Your task to perform on an android device: Open battery settings Image 0: 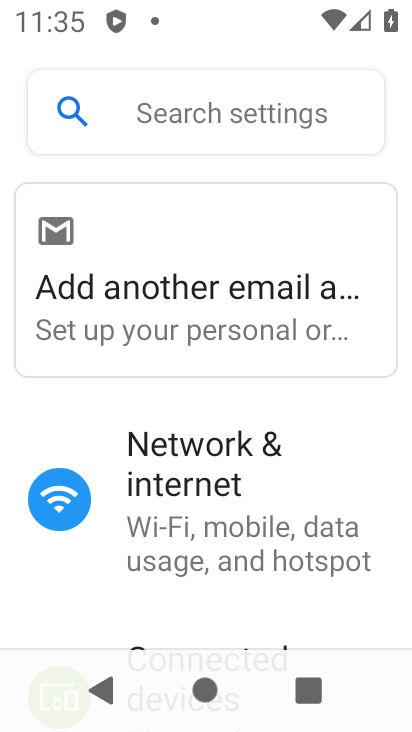
Step 0: press home button
Your task to perform on an android device: Open battery settings Image 1: 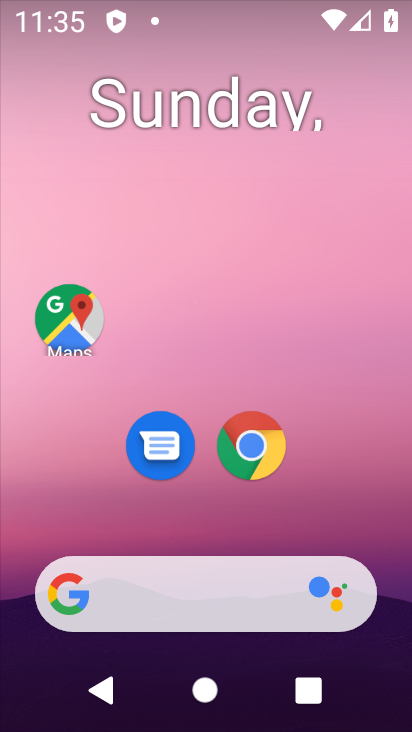
Step 1: drag from (377, 526) to (348, 159)
Your task to perform on an android device: Open battery settings Image 2: 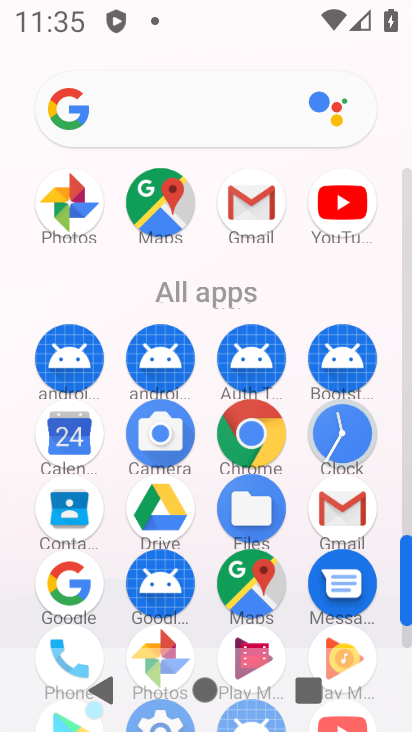
Step 2: drag from (206, 535) to (210, 250)
Your task to perform on an android device: Open battery settings Image 3: 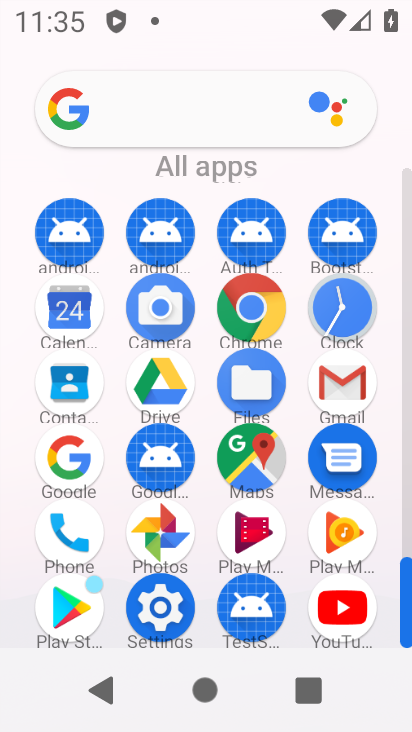
Step 3: click (158, 599)
Your task to perform on an android device: Open battery settings Image 4: 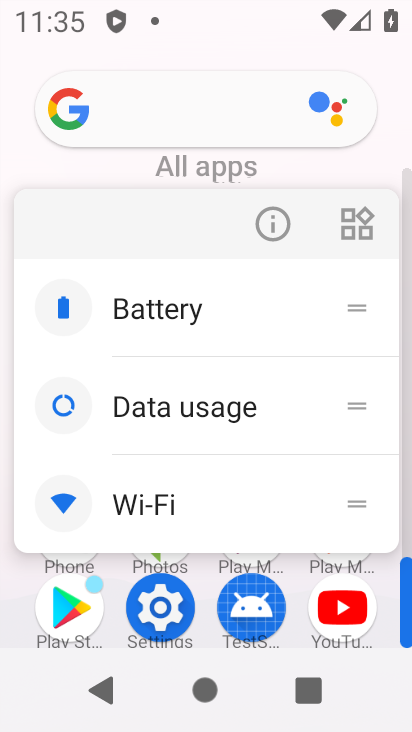
Step 4: click (165, 610)
Your task to perform on an android device: Open battery settings Image 5: 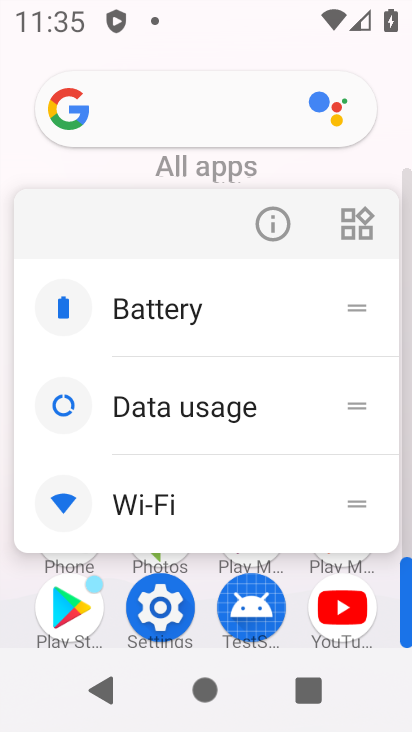
Step 5: click (171, 610)
Your task to perform on an android device: Open battery settings Image 6: 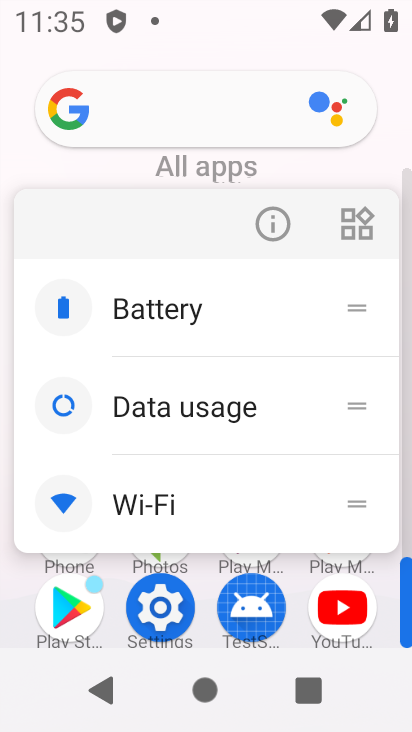
Step 6: click (162, 627)
Your task to perform on an android device: Open battery settings Image 7: 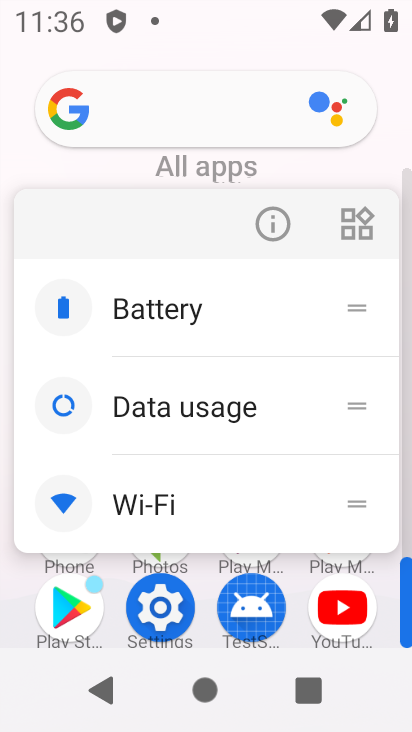
Step 7: click (178, 630)
Your task to perform on an android device: Open battery settings Image 8: 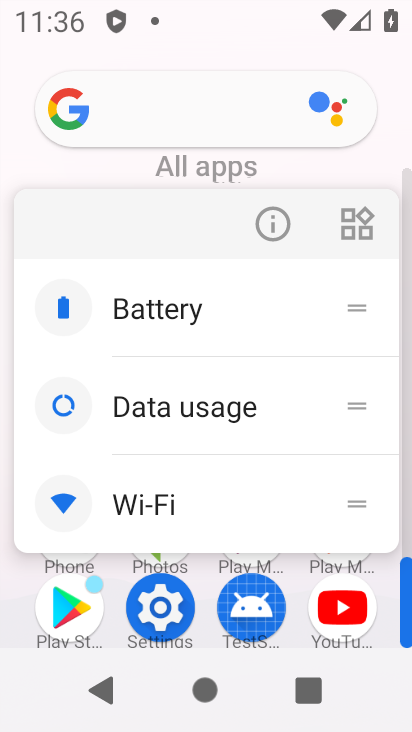
Step 8: click (183, 610)
Your task to perform on an android device: Open battery settings Image 9: 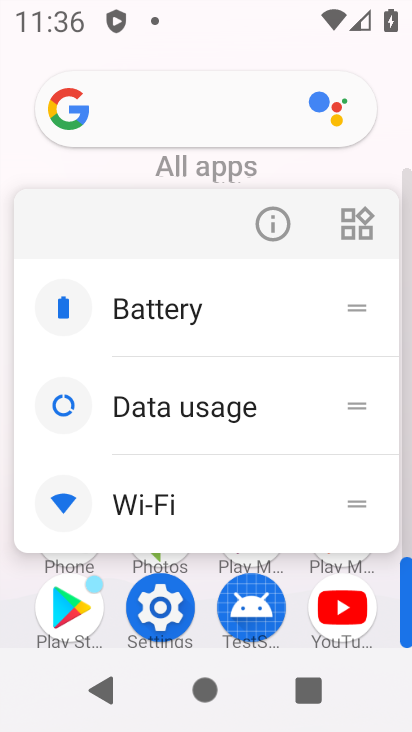
Step 9: click (191, 619)
Your task to perform on an android device: Open battery settings Image 10: 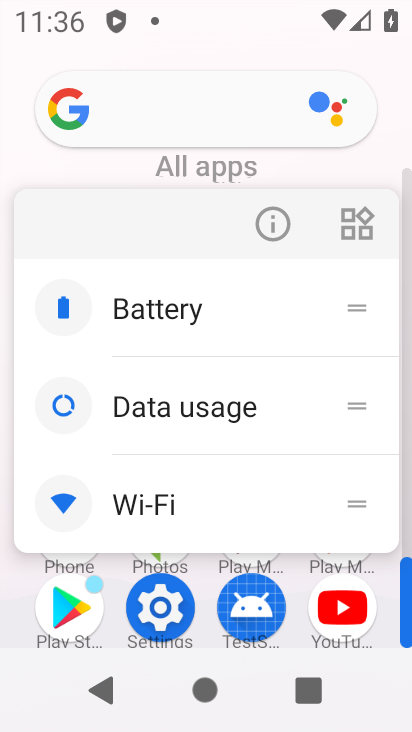
Step 10: click (187, 629)
Your task to perform on an android device: Open battery settings Image 11: 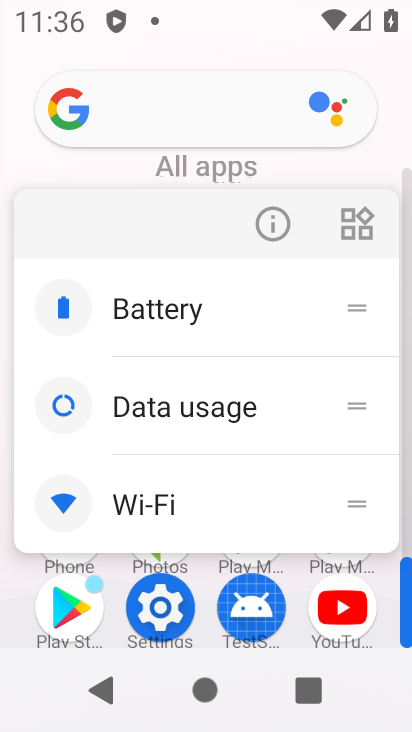
Step 11: click (179, 301)
Your task to perform on an android device: Open battery settings Image 12: 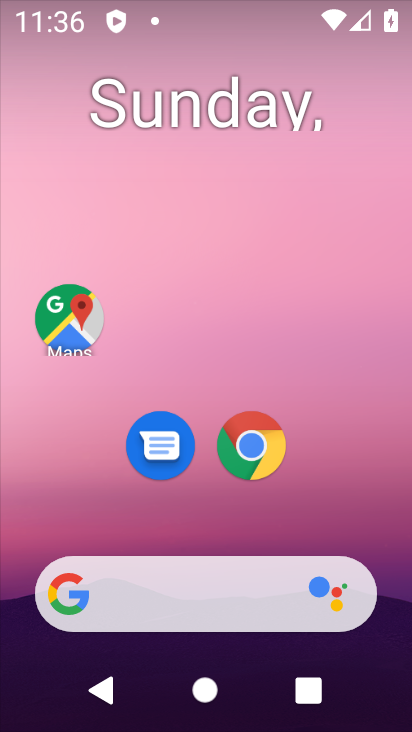
Step 12: drag from (330, 498) to (321, 147)
Your task to perform on an android device: Open battery settings Image 13: 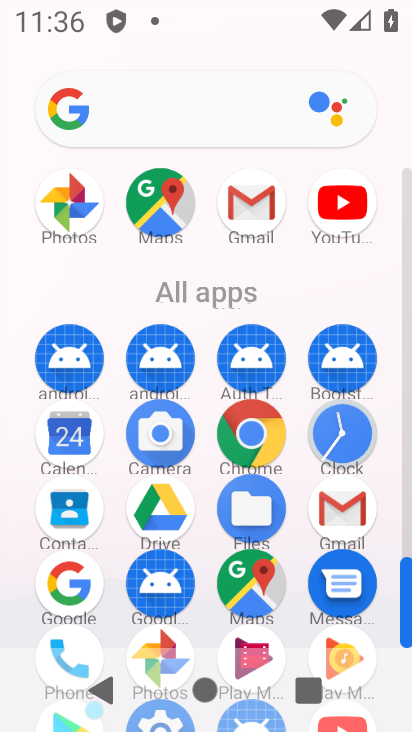
Step 13: drag from (201, 629) to (236, 315)
Your task to perform on an android device: Open battery settings Image 14: 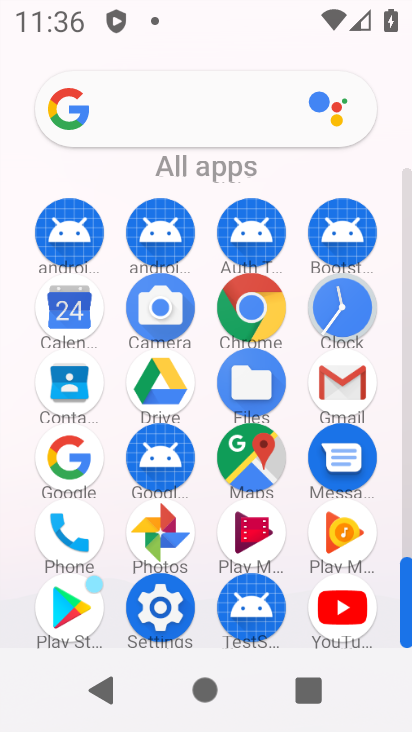
Step 14: click (159, 604)
Your task to perform on an android device: Open battery settings Image 15: 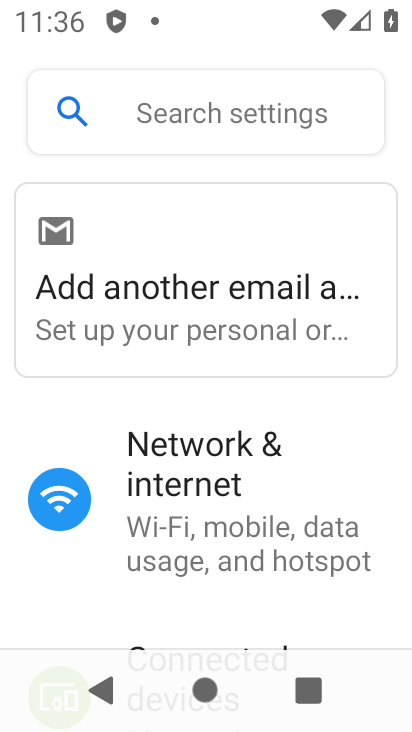
Step 15: drag from (318, 593) to (343, 253)
Your task to perform on an android device: Open battery settings Image 16: 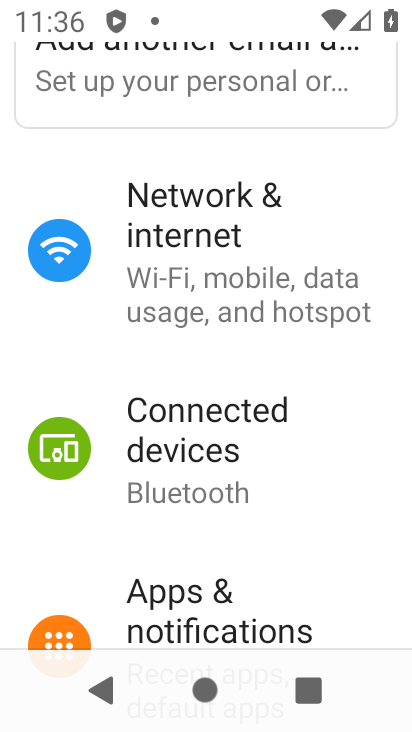
Step 16: drag from (324, 530) to (325, 208)
Your task to perform on an android device: Open battery settings Image 17: 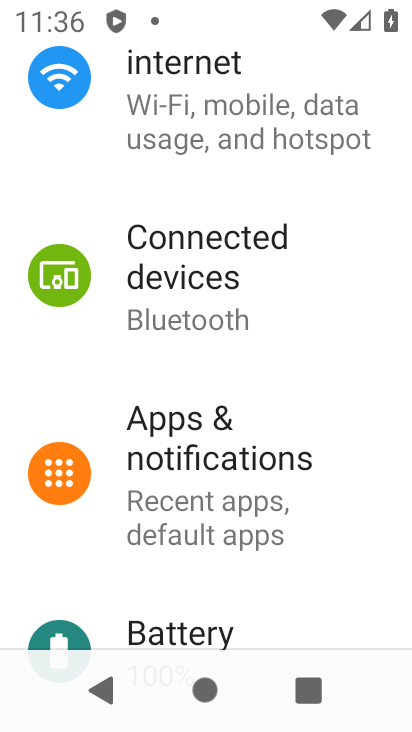
Step 17: drag from (327, 585) to (325, 281)
Your task to perform on an android device: Open battery settings Image 18: 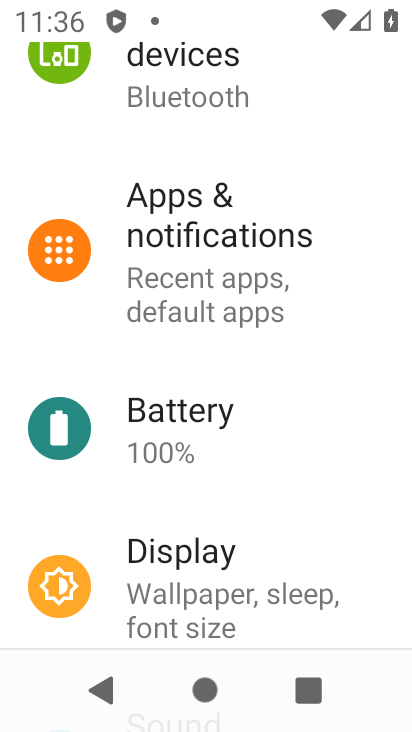
Step 18: click (195, 439)
Your task to perform on an android device: Open battery settings Image 19: 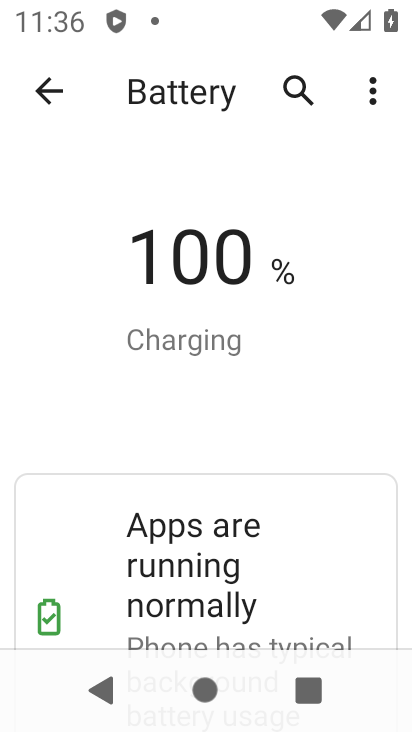
Step 19: click (377, 95)
Your task to perform on an android device: Open battery settings Image 20: 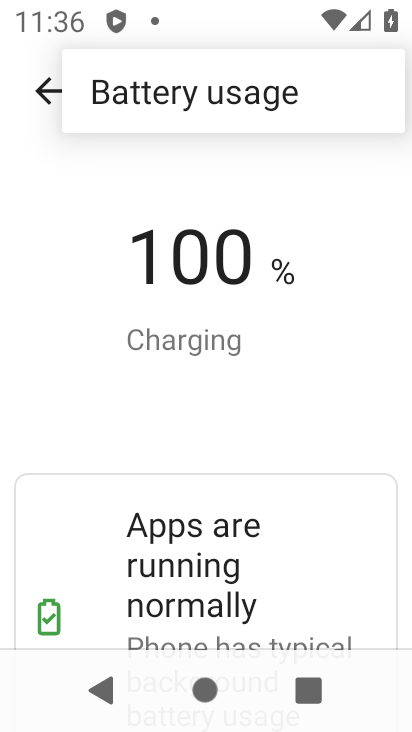
Step 20: click (177, 95)
Your task to perform on an android device: Open battery settings Image 21: 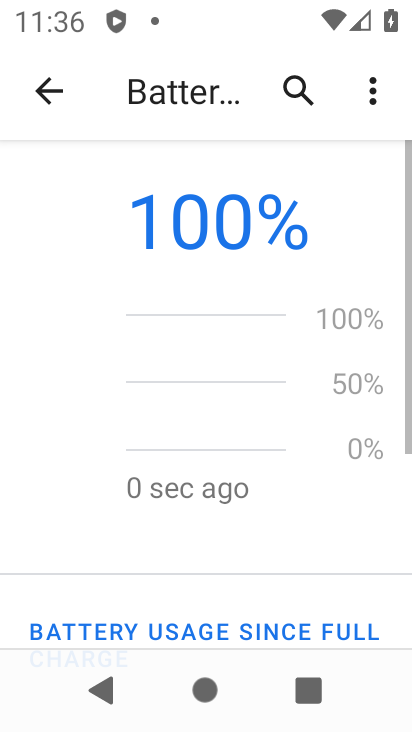
Step 21: task complete